Your task to perform on an android device: Is it going to rain tomorrow? Image 0: 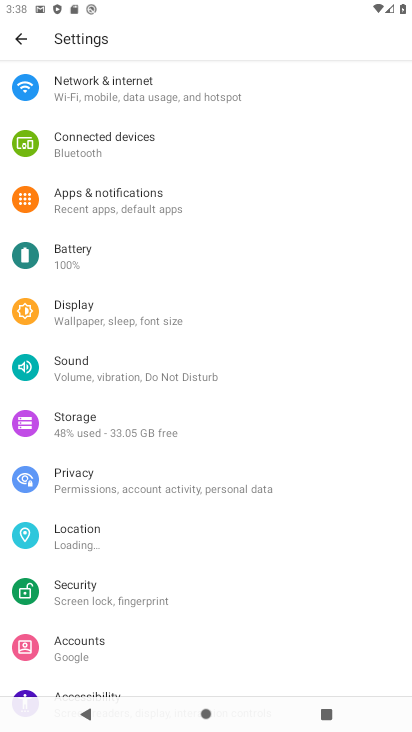
Step 0: press home button
Your task to perform on an android device: Is it going to rain tomorrow? Image 1: 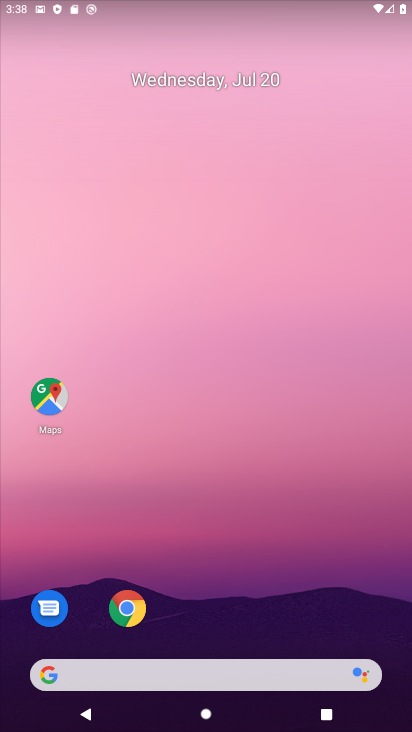
Step 1: drag from (195, 596) to (193, 10)
Your task to perform on an android device: Is it going to rain tomorrow? Image 2: 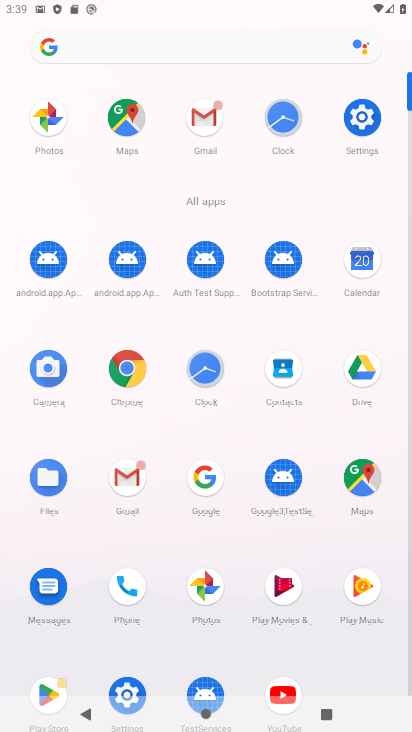
Step 2: click (206, 488)
Your task to perform on an android device: Is it going to rain tomorrow? Image 3: 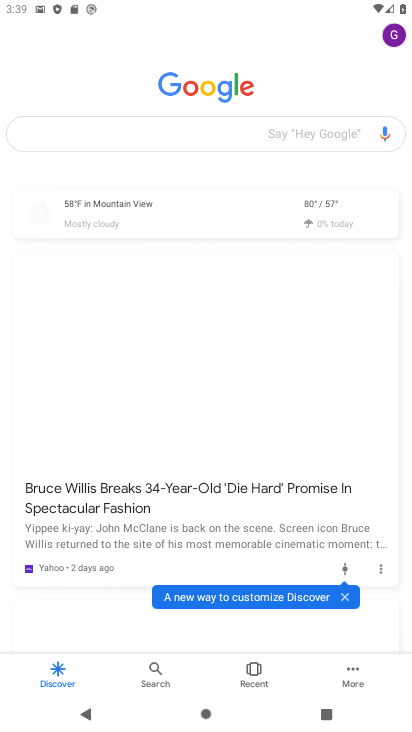
Step 3: click (233, 124)
Your task to perform on an android device: Is it going to rain tomorrow? Image 4: 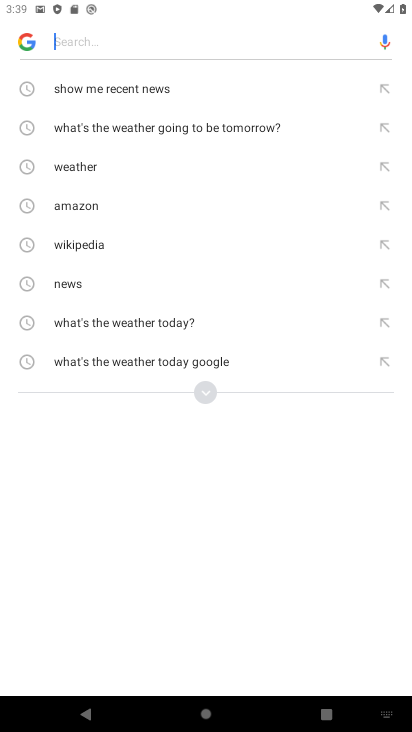
Step 4: click (89, 171)
Your task to perform on an android device: Is it going to rain tomorrow? Image 5: 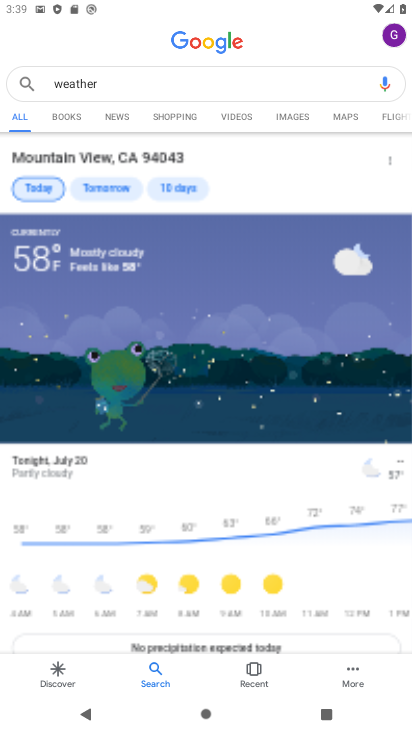
Step 5: task complete